Your task to perform on an android device: Do I have any events this weekend? Image 0: 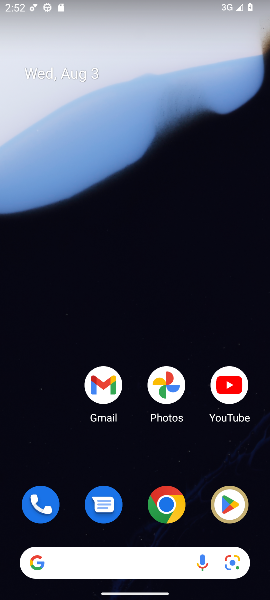
Step 0: drag from (205, 450) to (192, 42)
Your task to perform on an android device: Do I have any events this weekend? Image 1: 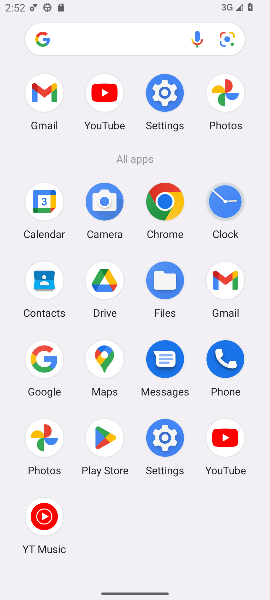
Step 1: click (49, 202)
Your task to perform on an android device: Do I have any events this weekend? Image 2: 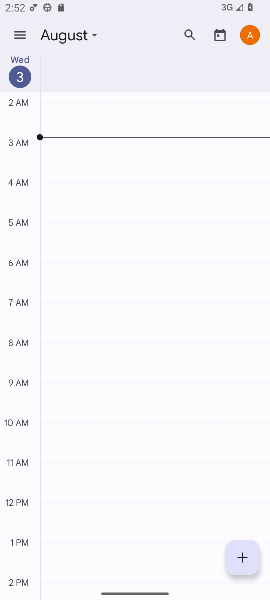
Step 2: click (23, 45)
Your task to perform on an android device: Do I have any events this weekend? Image 3: 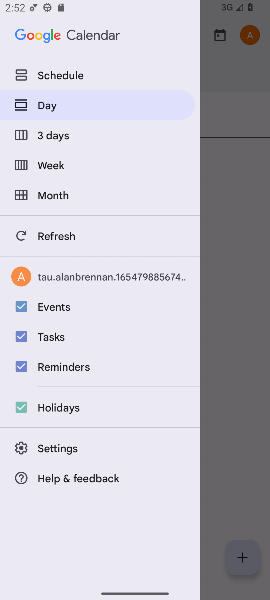
Step 3: click (64, 156)
Your task to perform on an android device: Do I have any events this weekend? Image 4: 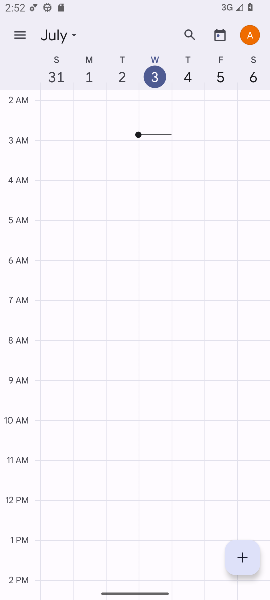
Step 4: task complete